Your task to perform on an android device: toggle notification dots Image 0: 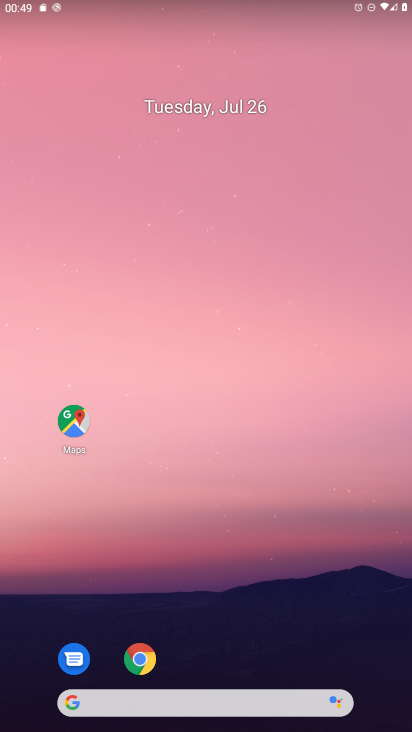
Step 0: drag from (280, 596) to (314, 1)
Your task to perform on an android device: toggle notification dots Image 1: 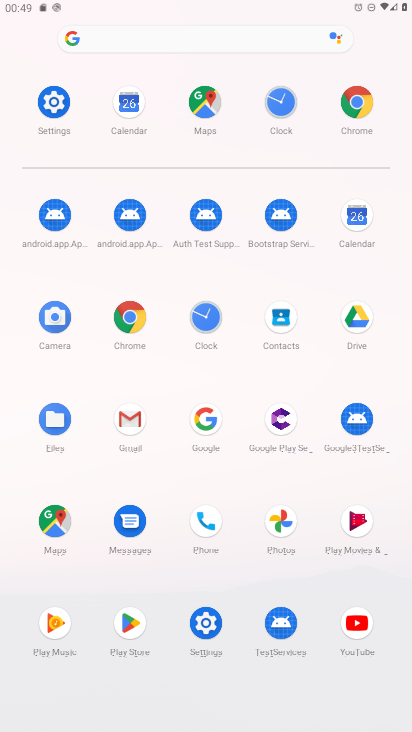
Step 1: click (200, 619)
Your task to perform on an android device: toggle notification dots Image 2: 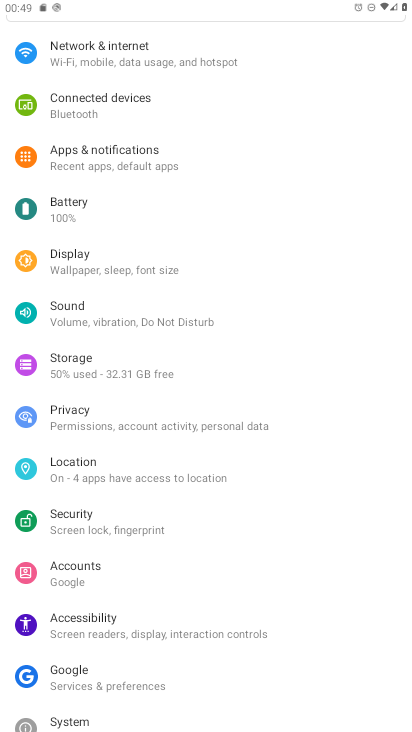
Step 2: click (114, 141)
Your task to perform on an android device: toggle notification dots Image 3: 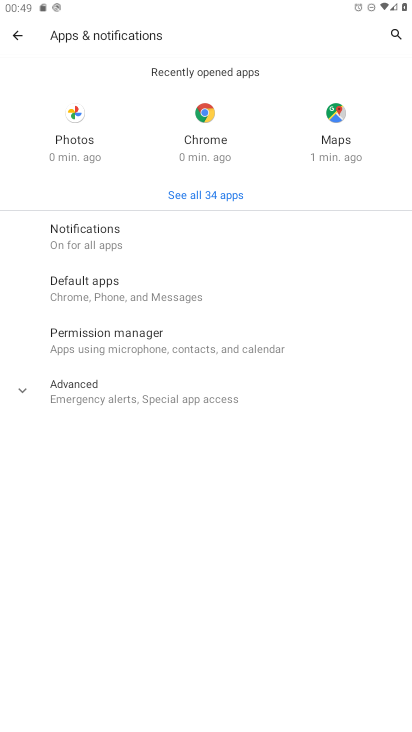
Step 3: click (80, 227)
Your task to perform on an android device: toggle notification dots Image 4: 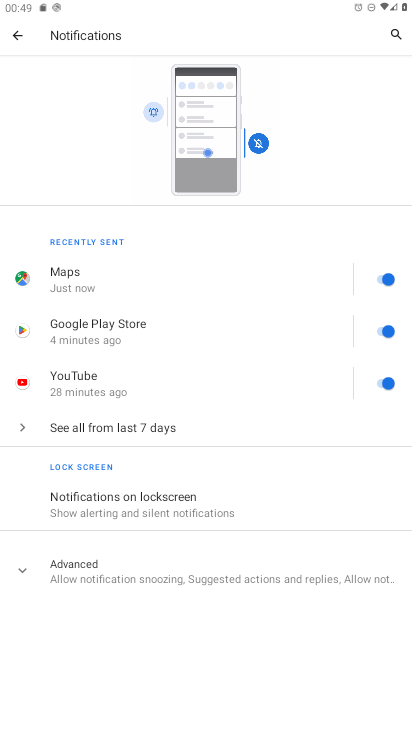
Step 4: click (209, 565)
Your task to perform on an android device: toggle notification dots Image 5: 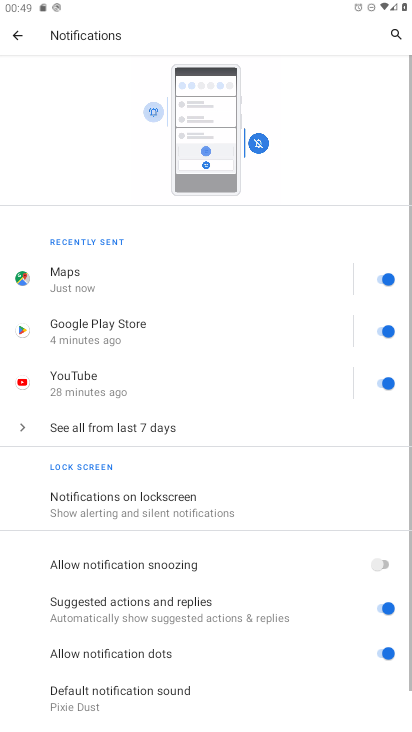
Step 5: drag from (274, 580) to (284, 265)
Your task to perform on an android device: toggle notification dots Image 6: 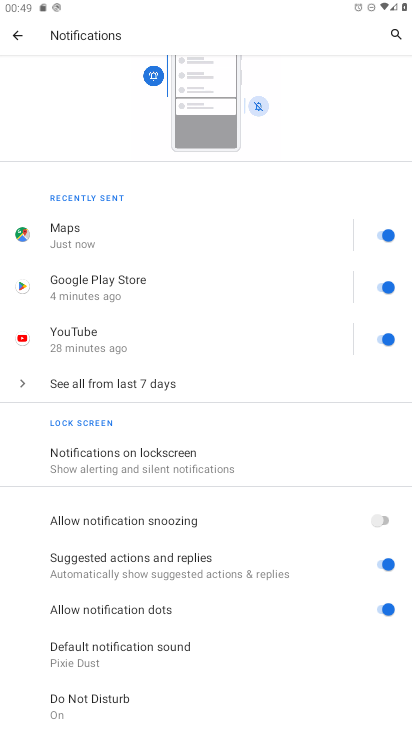
Step 6: click (259, 607)
Your task to perform on an android device: toggle notification dots Image 7: 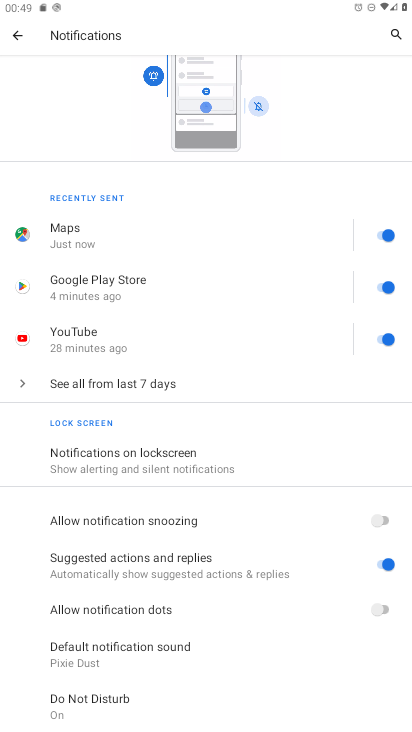
Step 7: task complete